Your task to perform on an android device: Is it going to rain this weekend? Image 0: 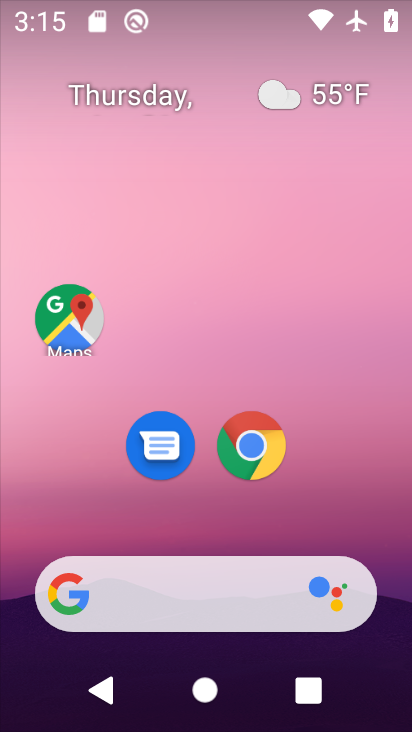
Step 0: click (256, 453)
Your task to perform on an android device: Is it going to rain this weekend? Image 1: 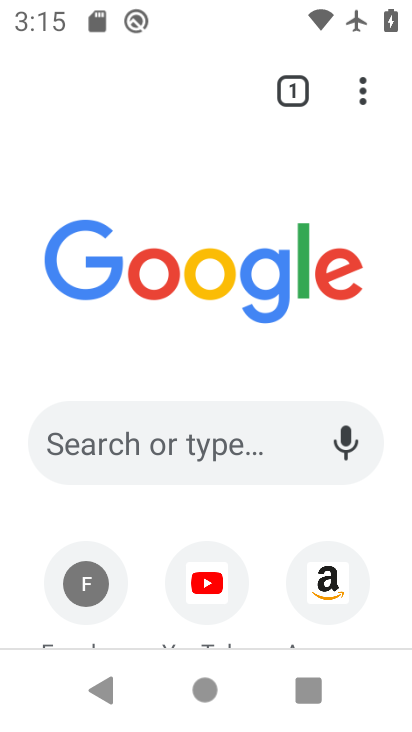
Step 1: click (222, 446)
Your task to perform on an android device: Is it going to rain this weekend? Image 2: 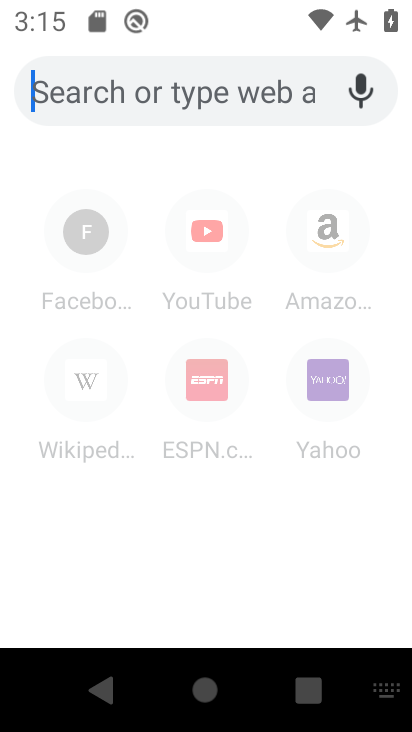
Step 2: type "is it going to rain this weekend"
Your task to perform on an android device: Is it going to rain this weekend? Image 3: 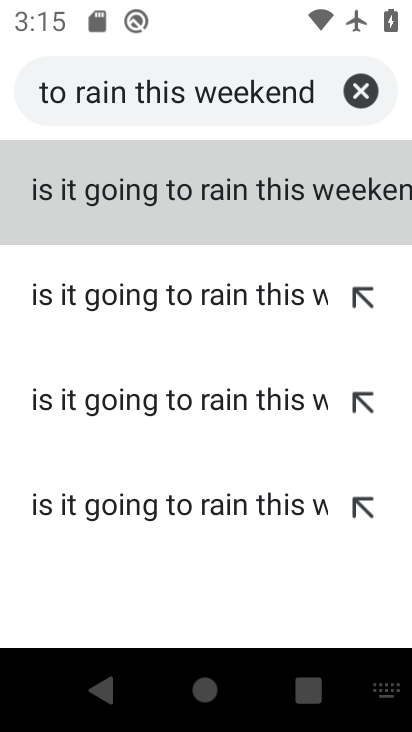
Step 3: click (210, 209)
Your task to perform on an android device: Is it going to rain this weekend? Image 4: 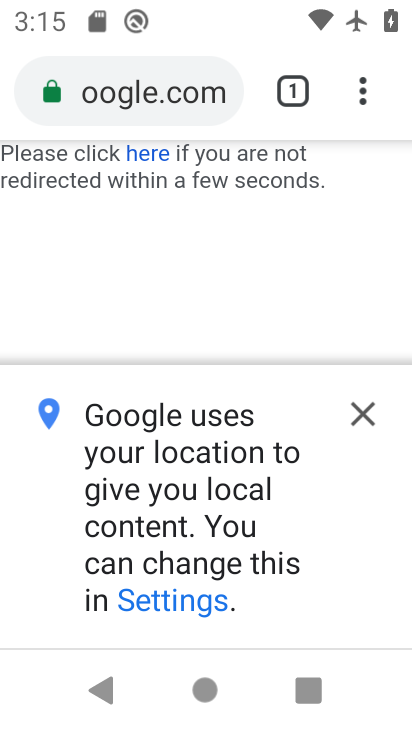
Step 4: click (355, 407)
Your task to perform on an android device: Is it going to rain this weekend? Image 5: 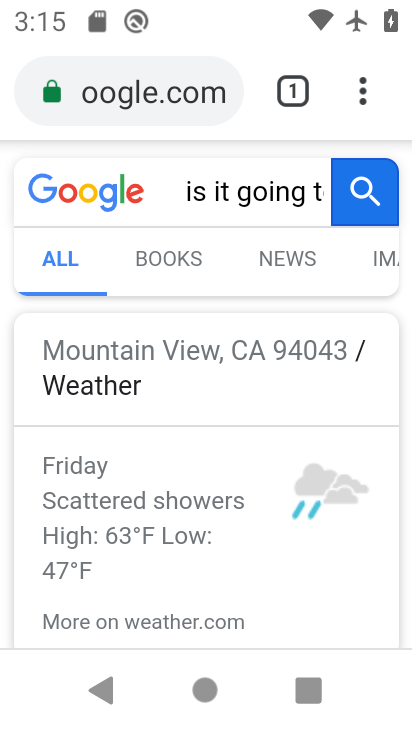
Step 5: task complete